Your task to perform on an android device: change notification settings in the gmail app Image 0: 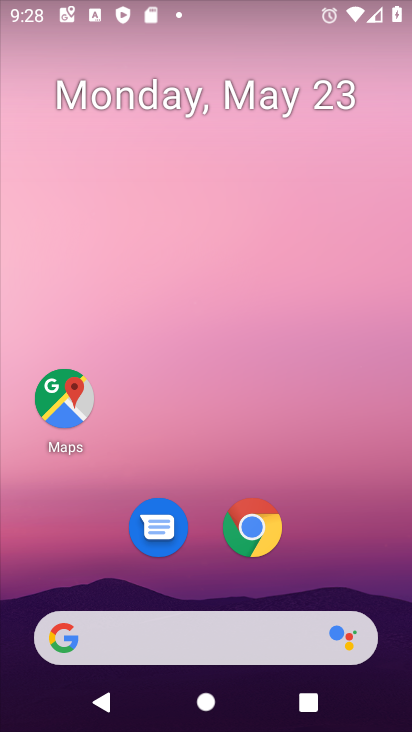
Step 0: drag from (336, 504) to (270, 34)
Your task to perform on an android device: change notification settings in the gmail app Image 1: 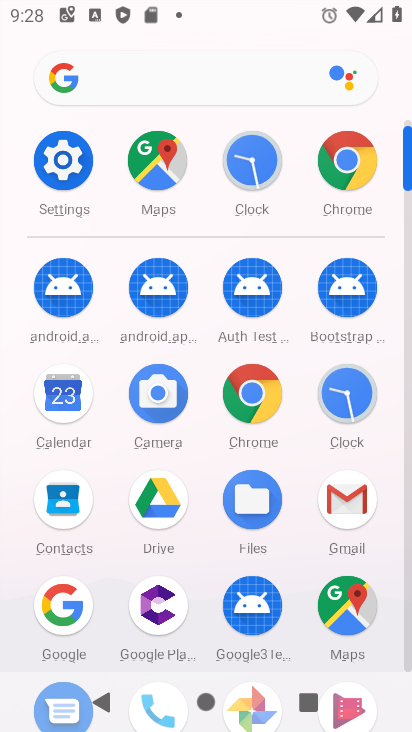
Step 1: drag from (6, 618) to (44, 262)
Your task to perform on an android device: change notification settings in the gmail app Image 2: 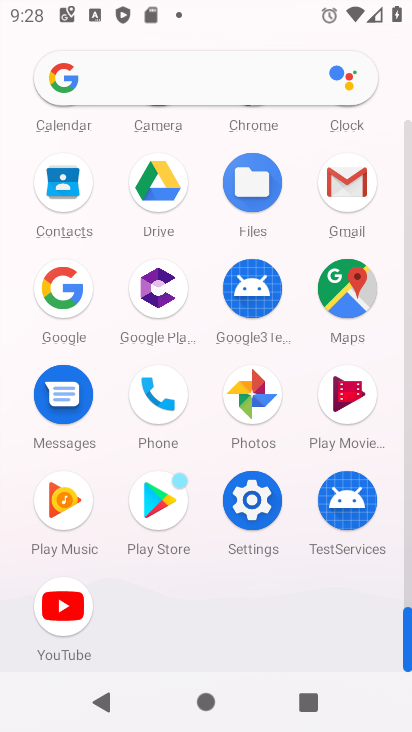
Step 2: click (339, 179)
Your task to perform on an android device: change notification settings in the gmail app Image 3: 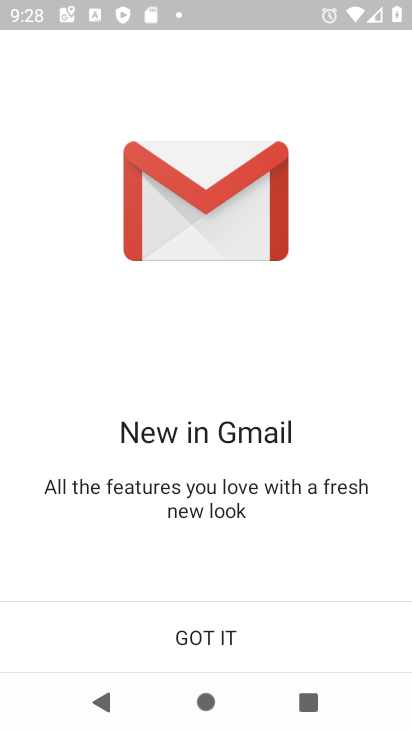
Step 3: click (208, 627)
Your task to perform on an android device: change notification settings in the gmail app Image 4: 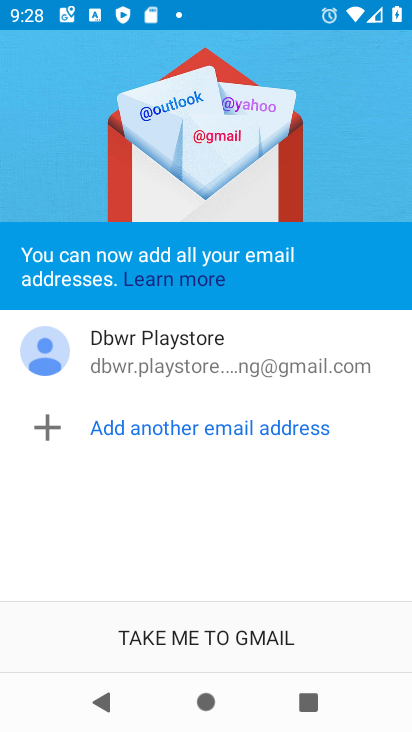
Step 4: click (206, 619)
Your task to perform on an android device: change notification settings in the gmail app Image 5: 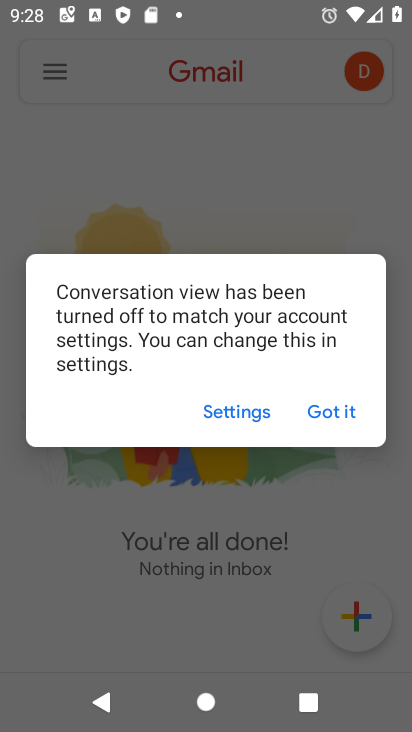
Step 5: click (321, 406)
Your task to perform on an android device: change notification settings in the gmail app Image 6: 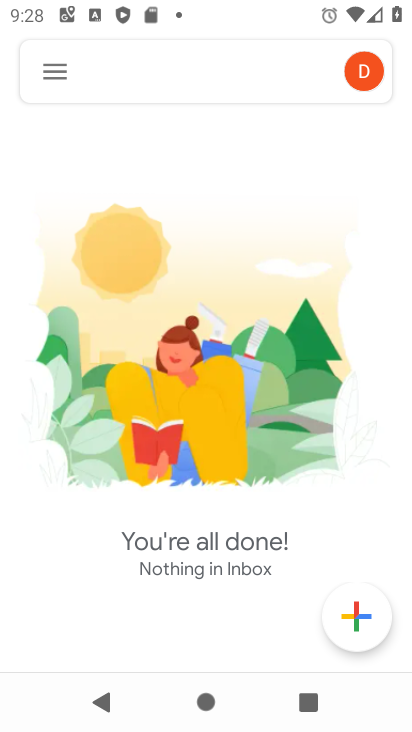
Step 6: click (52, 70)
Your task to perform on an android device: change notification settings in the gmail app Image 7: 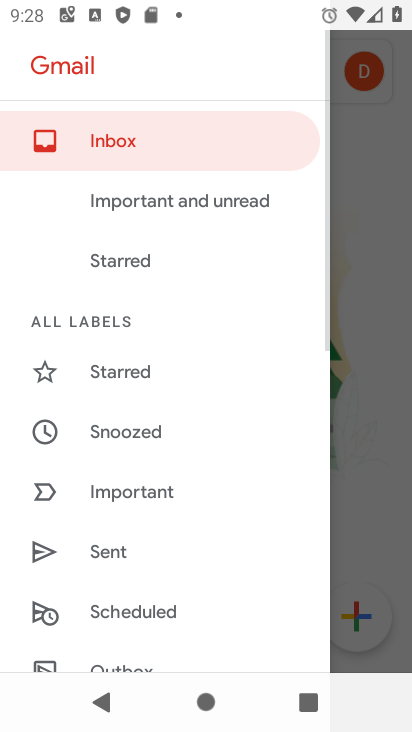
Step 7: drag from (246, 577) to (242, 122)
Your task to perform on an android device: change notification settings in the gmail app Image 8: 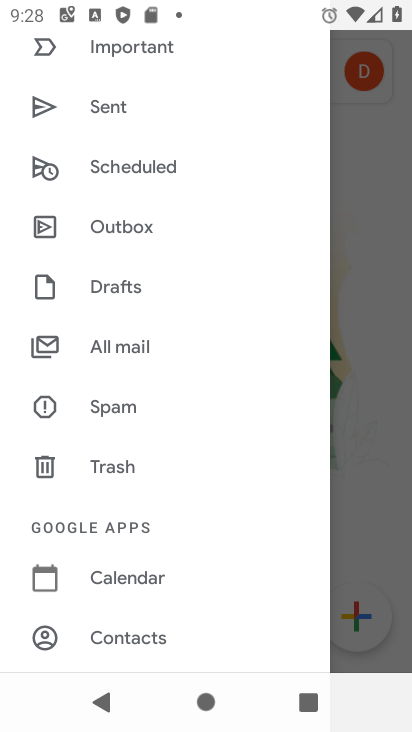
Step 8: drag from (185, 566) to (206, 125)
Your task to perform on an android device: change notification settings in the gmail app Image 9: 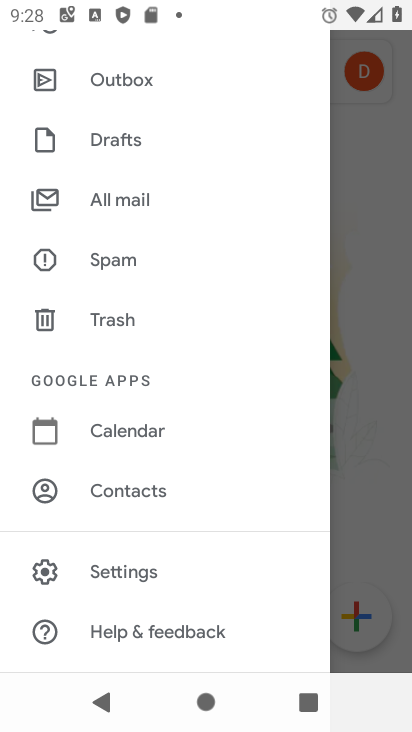
Step 9: click (126, 565)
Your task to perform on an android device: change notification settings in the gmail app Image 10: 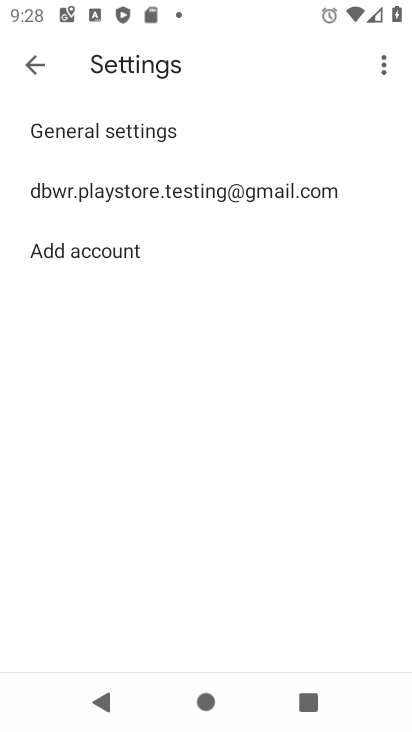
Step 10: click (151, 196)
Your task to perform on an android device: change notification settings in the gmail app Image 11: 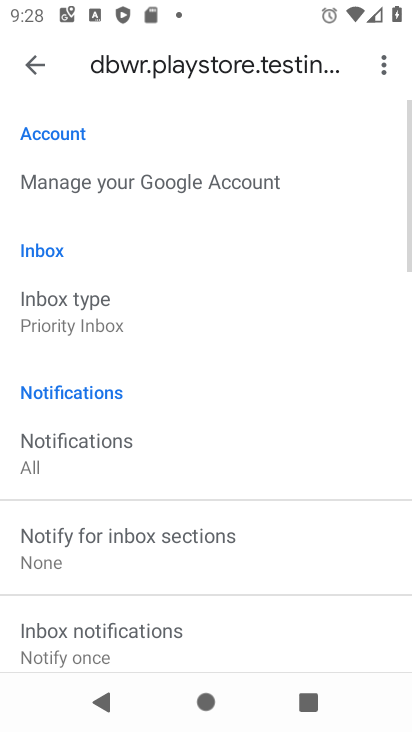
Step 11: drag from (243, 572) to (281, 123)
Your task to perform on an android device: change notification settings in the gmail app Image 12: 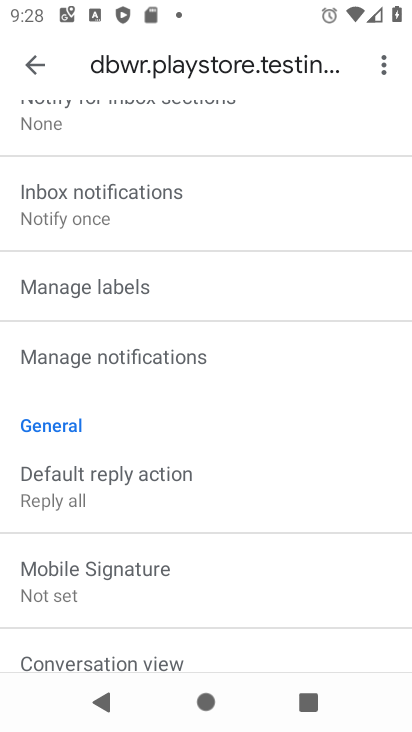
Step 12: drag from (214, 492) to (244, 269)
Your task to perform on an android device: change notification settings in the gmail app Image 13: 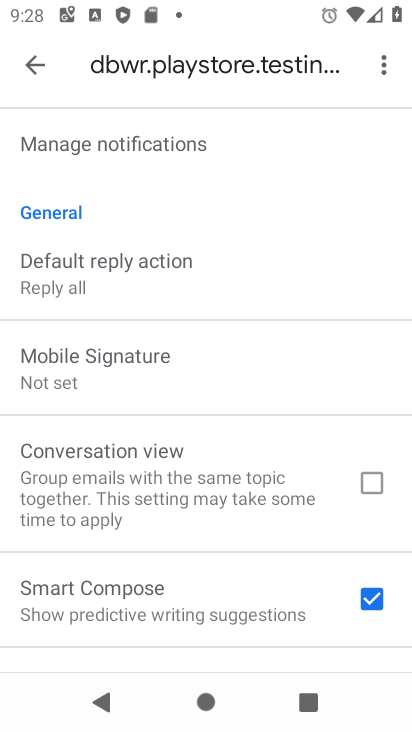
Step 13: click (136, 138)
Your task to perform on an android device: change notification settings in the gmail app Image 14: 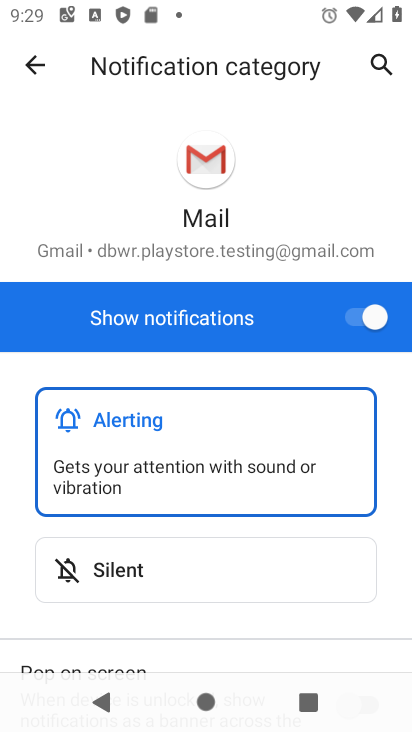
Step 14: drag from (228, 571) to (238, 121)
Your task to perform on an android device: change notification settings in the gmail app Image 15: 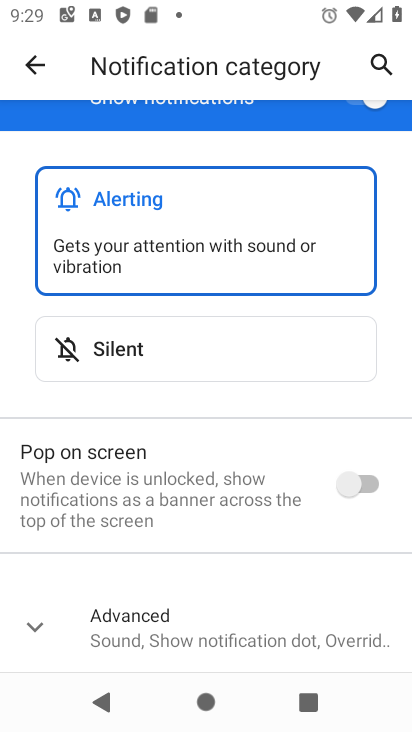
Step 15: click (51, 615)
Your task to perform on an android device: change notification settings in the gmail app Image 16: 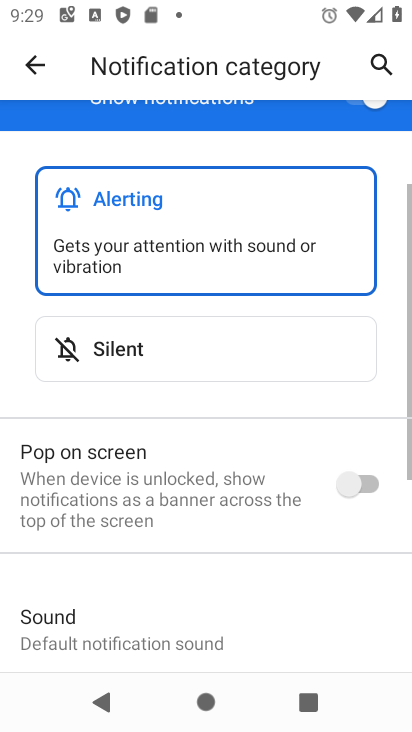
Step 16: task complete